Your task to perform on an android device: Open the phone app and click the voicemail tab. Image 0: 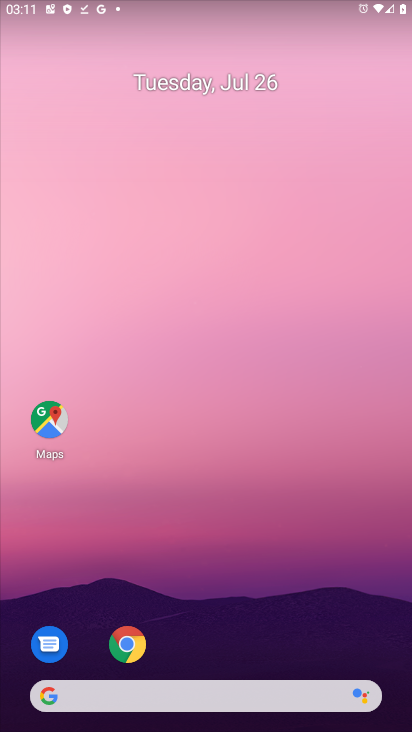
Step 0: drag from (183, 695) to (114, 222)
Your task to perform on an android device: Open the phone app and click the voicemail tab. Image 1: 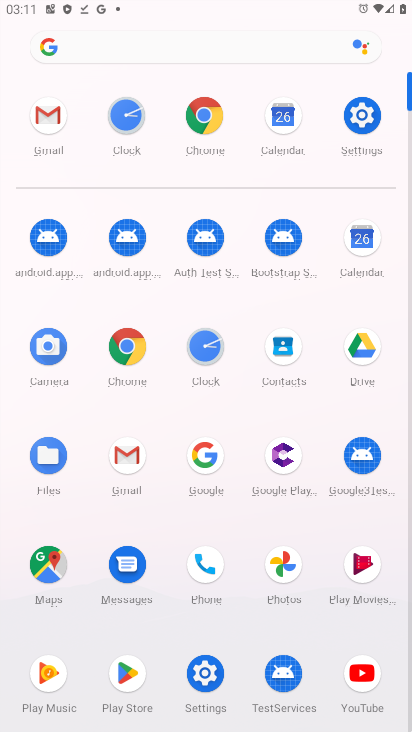
Step 1: click (204, 567)
Your task to perform on an android device: Open the phone app and click the voicemail tab. Image 2: 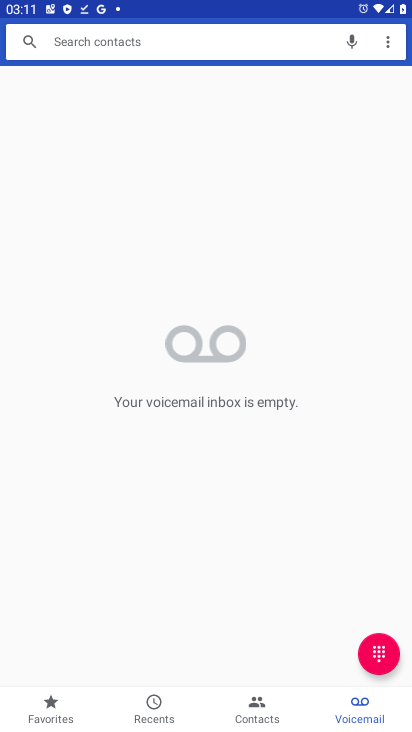
Step 2: click (352, 701)
Your task to perform on an android device: Open the phone app and click the voicemail tab. Image 3: 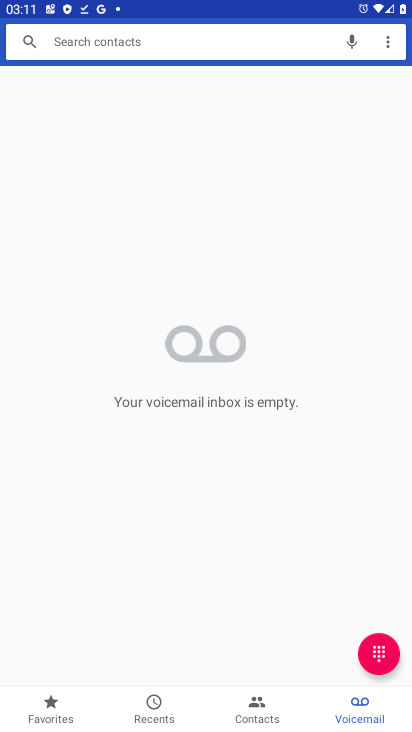
Step 3: task complete